Your task to perform on an android device: Find coffee shops on Maps Image 0: 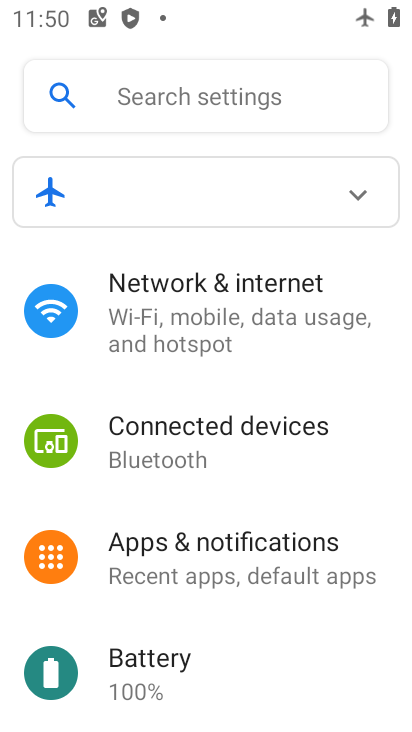
Step 0: press home button
Your task to perform on an android device: Find coffee shops on Maps Image 1: 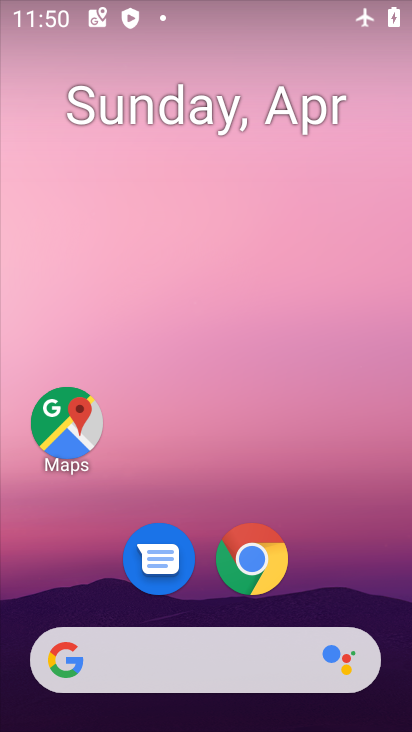
Step 1: click (56, 415)
Your task to perform on an android device: Find coffee shops on Maps Image 2: 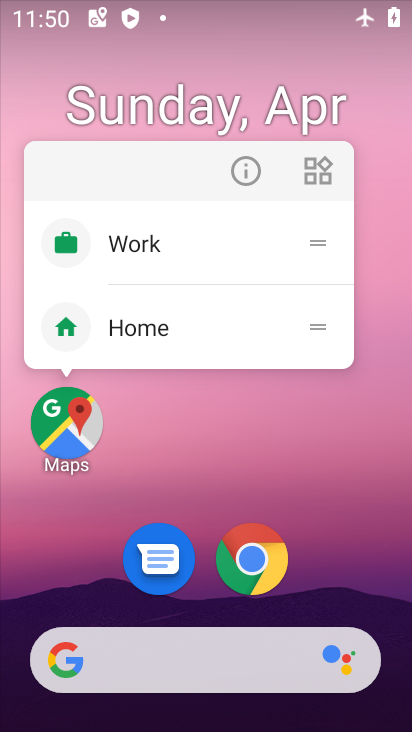
Step 2: click (56, 415)
Your task to perform on an android device: Find coffee shops on Maps Image 3: 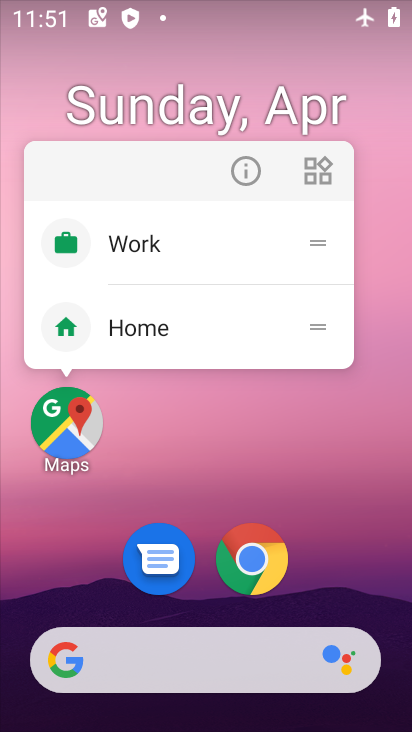
Step 3: click (59, 422)
Your task to perform on an android device: Find coffee shops on Maps Image 4: 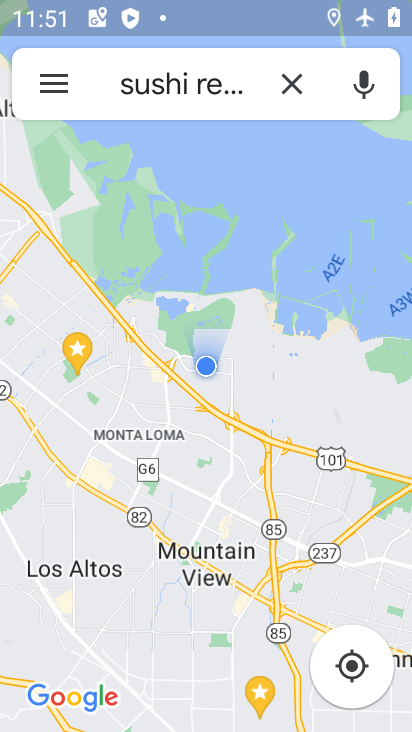
Step 4: click (286, 94)
Your task to perform on an android device: Find coffee shops on Maps Image 5: 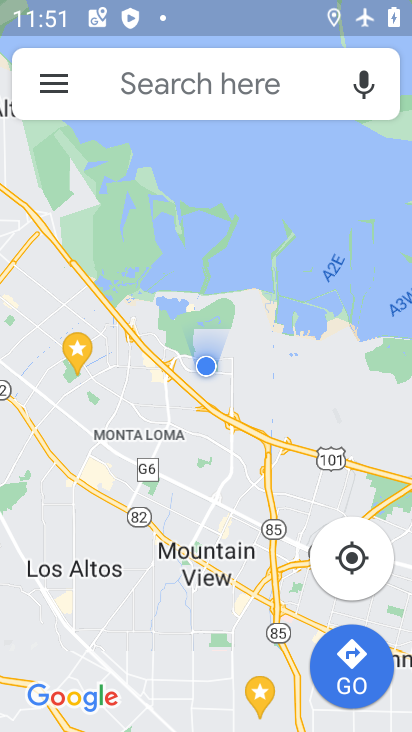
Step 5: click (220, 94)
Your task to perform on an android device: Find coffee shops on Maps Image 6: 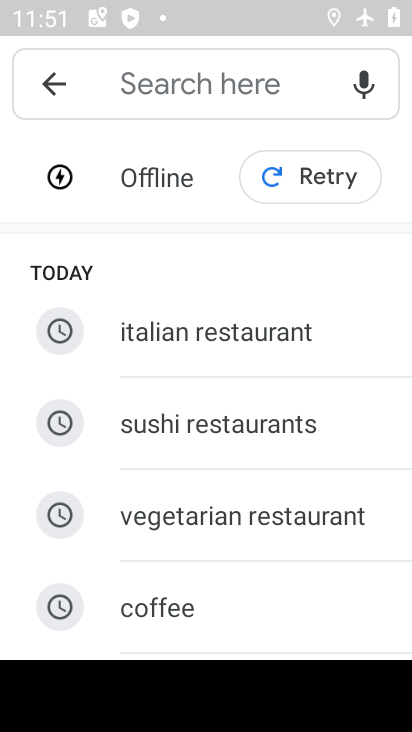
Step 6: type "coffee shops "
Your task to perform on an android device: Find coffee shops on Maps Image 7: 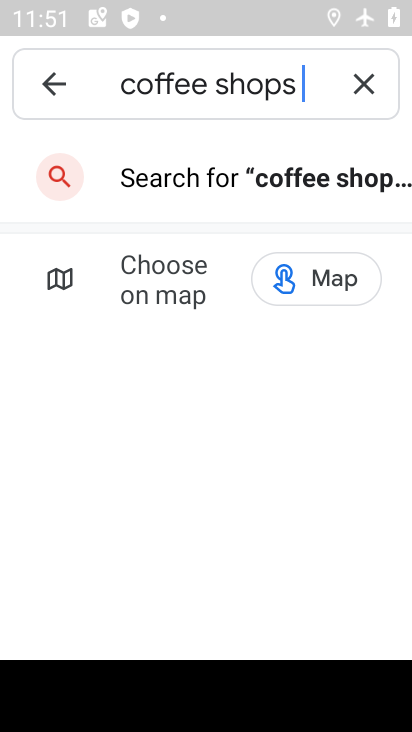
Step 7: click (338, 164)
Your task to perform on an android device: Find coffee shops on Maps Image 8: 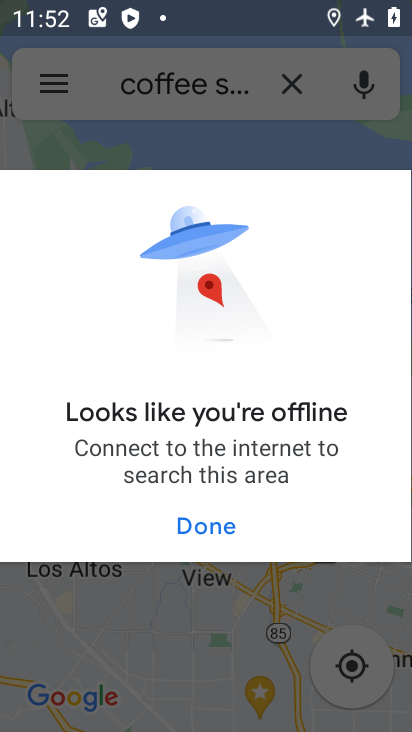
Step 8: task complete